Your task to perform on an android device: Search for Italian restaurants on Maps Image 0: 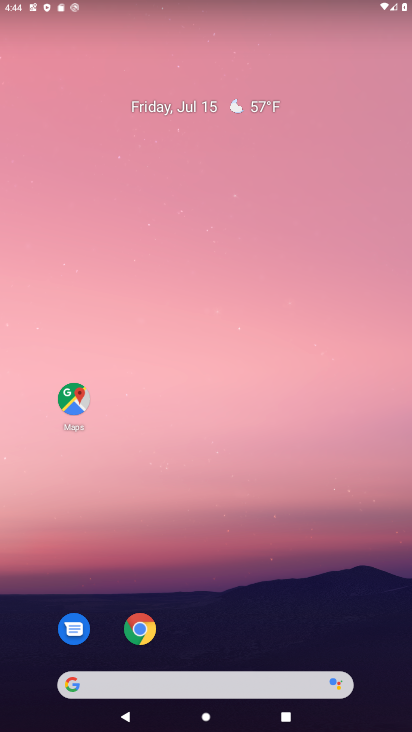
Step 0: press home button
Your task to perform on an android device: Search for Italian restaurants on Maps Image 1: 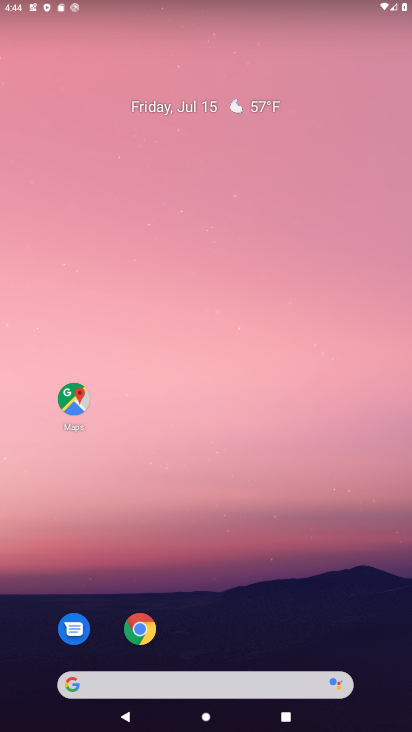
Step 1: drag from (251, 637) to (297, 0)
Your task to perform on an android device: Search for Italian restaurants on Maps Image 2: 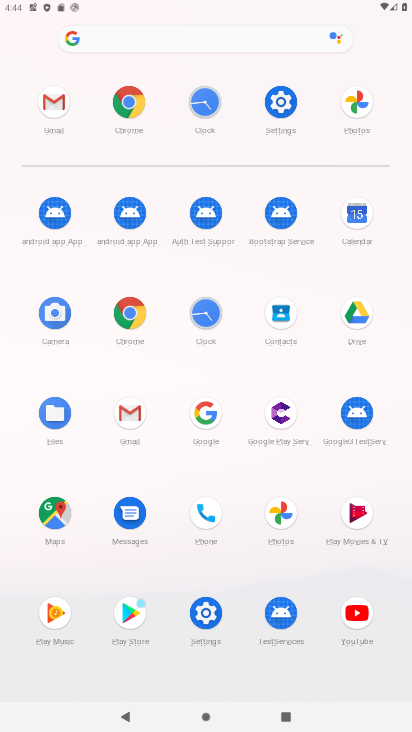
Step 2: click (56, 522)
Your task to perform on an android device: Search for Italian restaurants on Maps Image 3: 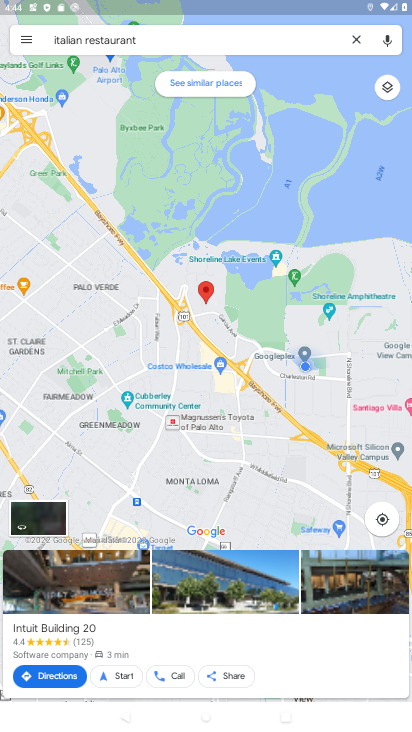
Step 3: task complete